Your task to perform on an android device: Add "bose quietcomfort 35" to the cart on newegg.com, then select checkout. Image 0: 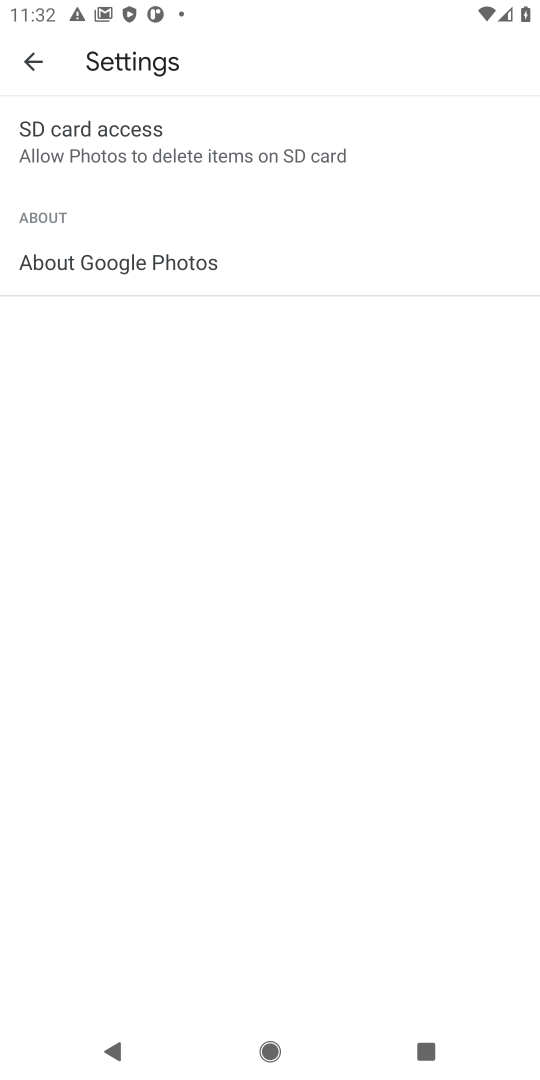
Step 0: press home button
Your task to perform on an android device: Add "bose quietcomfort 35" to the cart on newegg.com, then select checkout. Image 1: 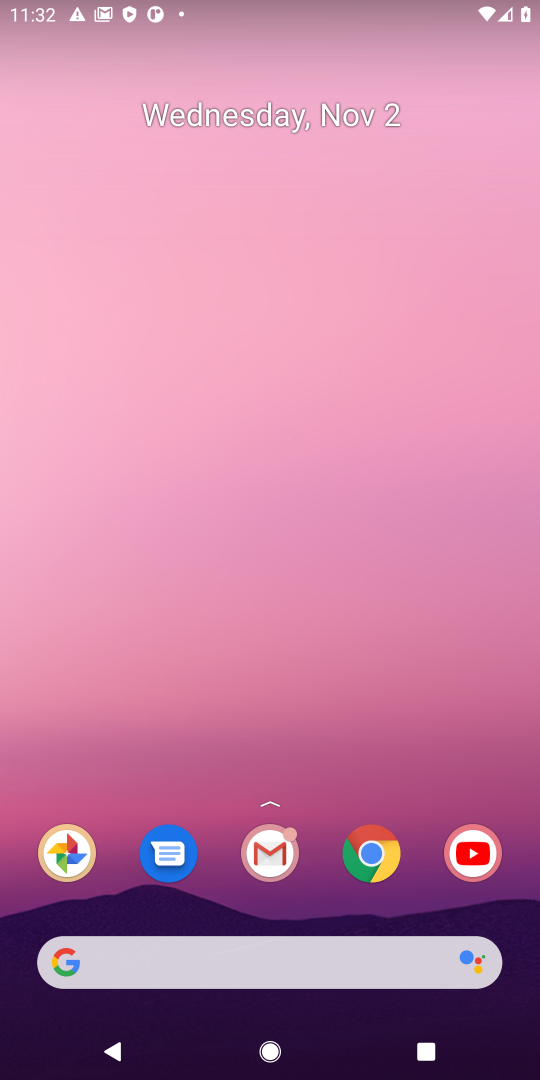
Step 1: click (369, 859)
Your task to perform on an android device: Add "bose quietcomfort 35" to the cart on newegg.com, then select checkout. Image 2: 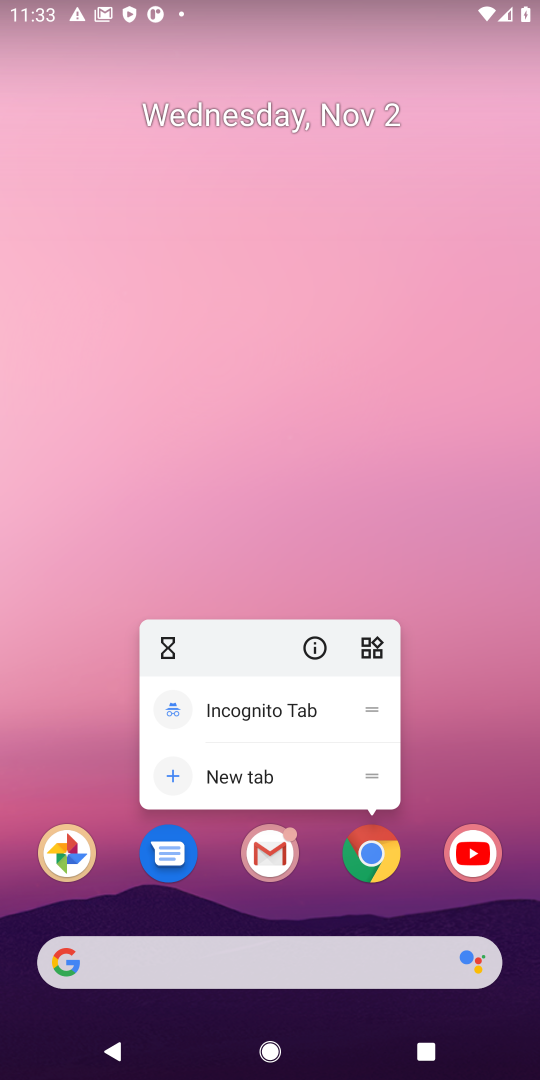
Step 2: click (373, 864)
Your task to perform on an android device: Add "bose quietcomfort 35" to the cart on newegg.com, then select checkout. Image 3: 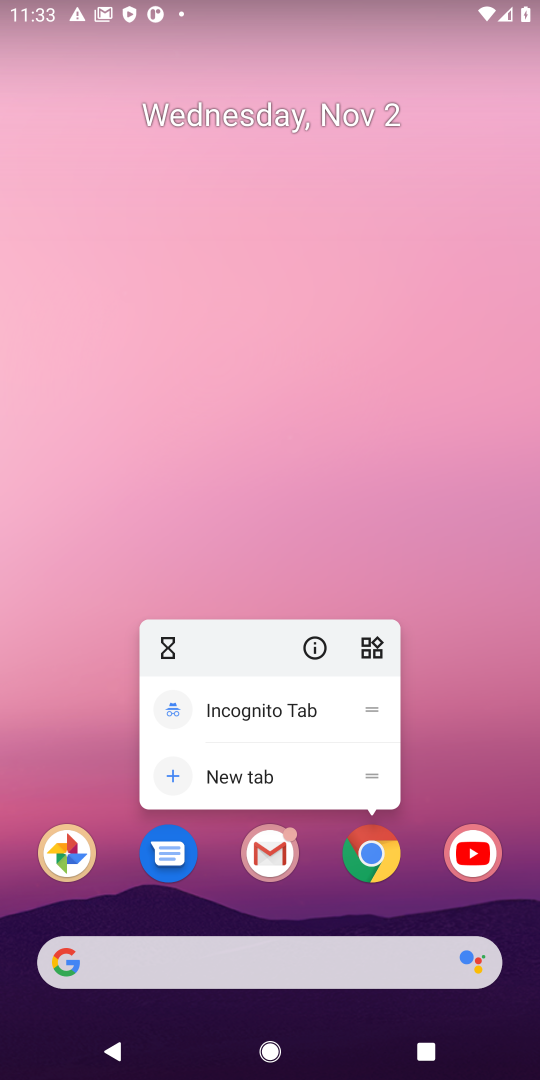
Step 3: click (388, 853)
Your task to perform on an android device: Add "bose quietcomfort 35" to the cart on newegg.com, then select checkout. Image 4: 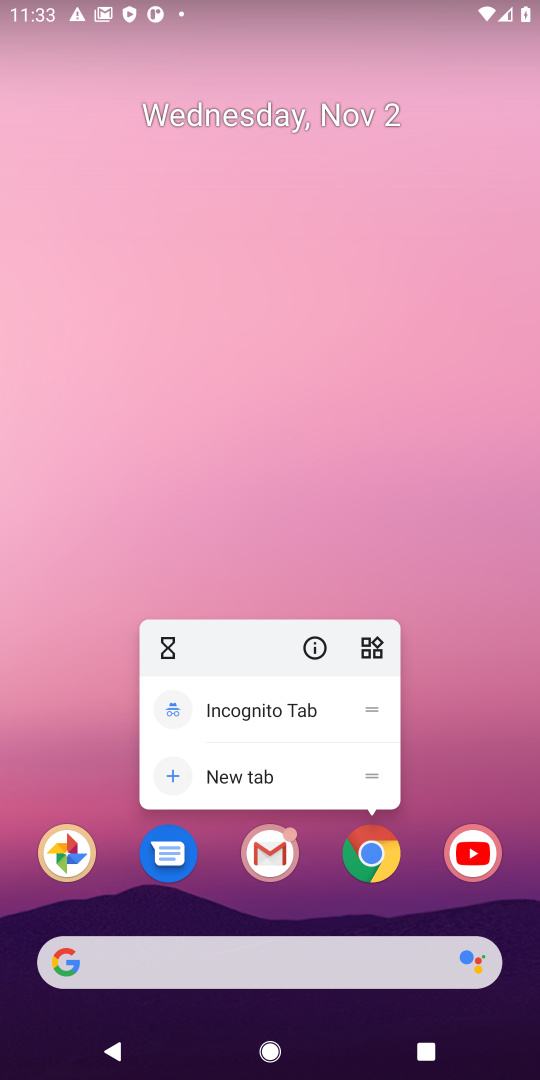
Step 4: click (377, 850)
Your task to perform on an android device: Add "bose quietcomfort 35" to the cart on newegg.com, then select checkout. Image 5: 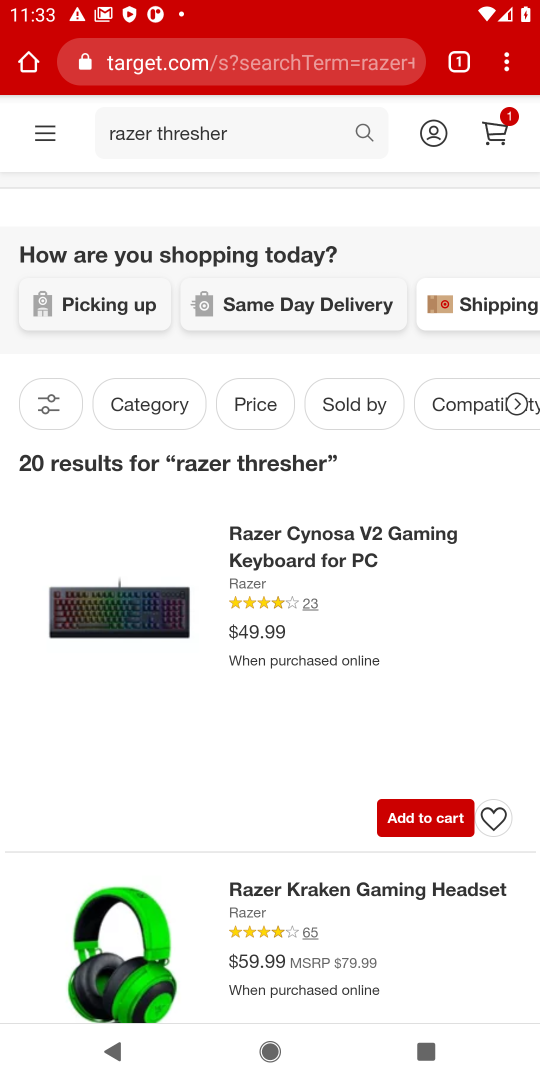
Step 5: click (266, 57)
Your task to perform on an android device: Add "bose quietcomfort 35" to the cart on newegg.com, then select checkout. Image 6: 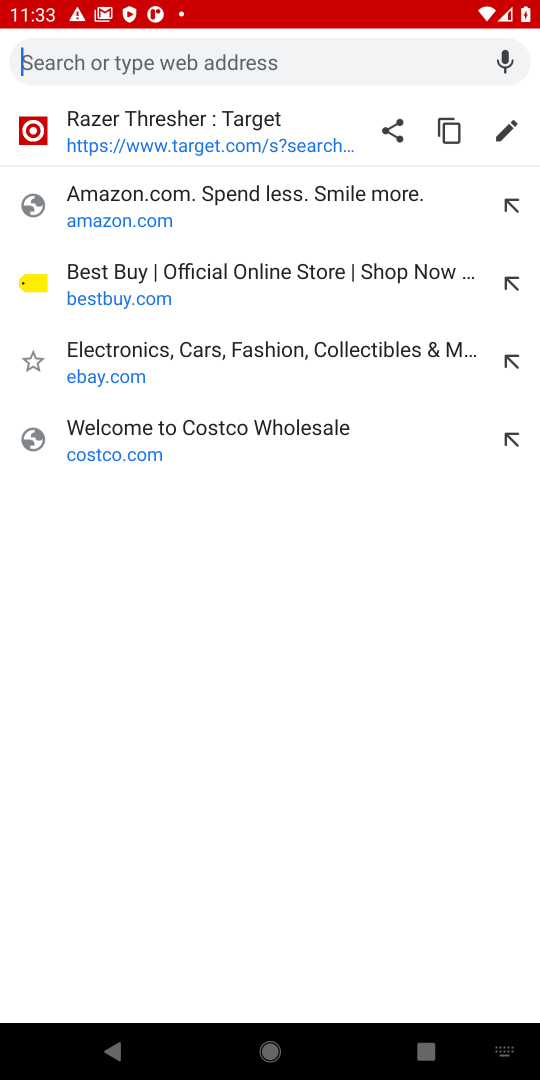
Step 6: type "newegg"
Your task to perform on an android device: Add "bose quietcomfort 35" to the cart on newegg.com, then select checkout. Image 7: 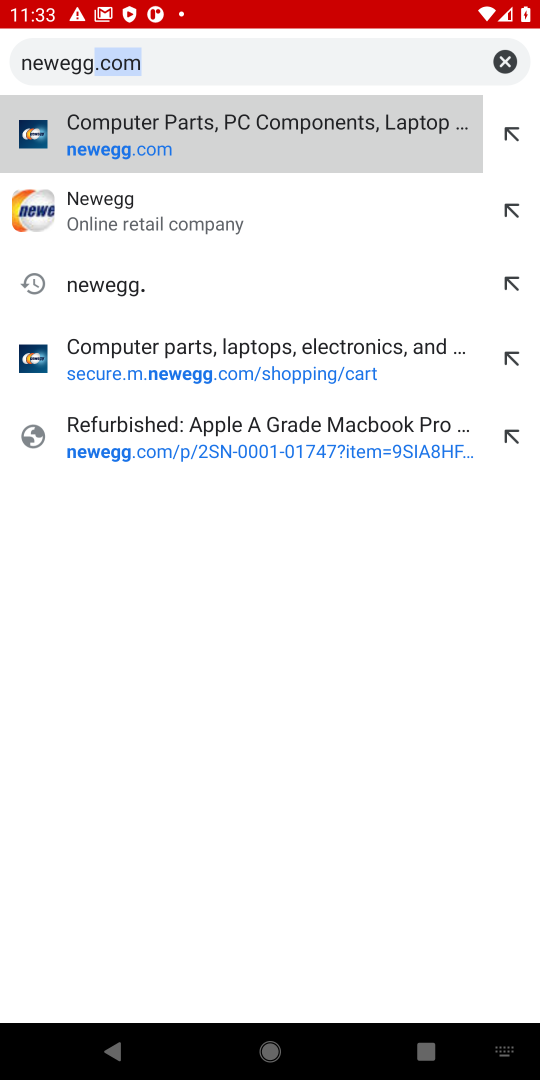
Step 7: press enter
Your task to perform on an android device: Add "bose quietcomfort 35" to the cart on newegg.com, then select checkout. Image 8: 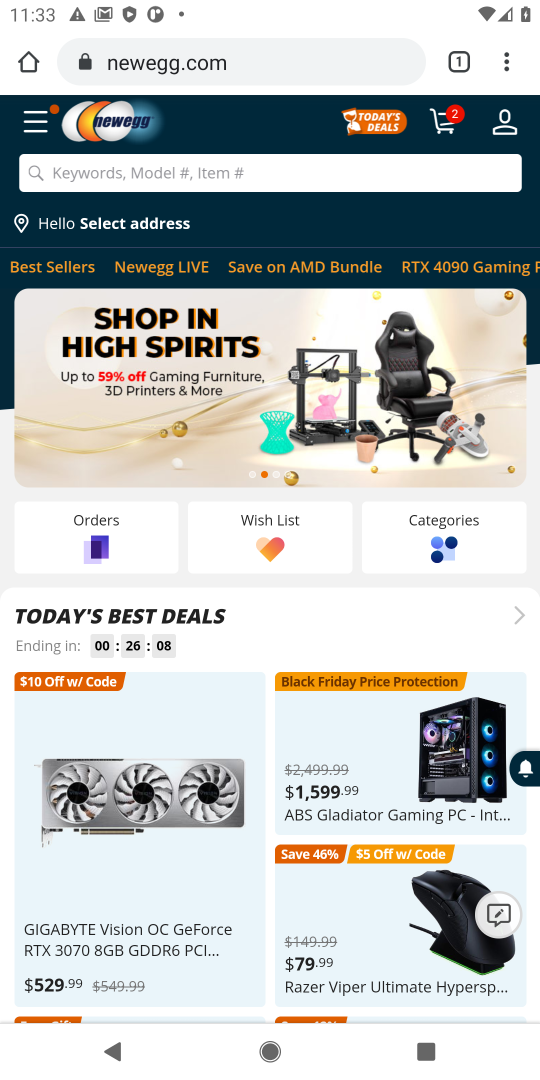
Step 8: click (154, 170)
Your task to perform on an android device: Add "bose quietcomfort 35" to the cart on newegg.com, then select checkout. Image 9: 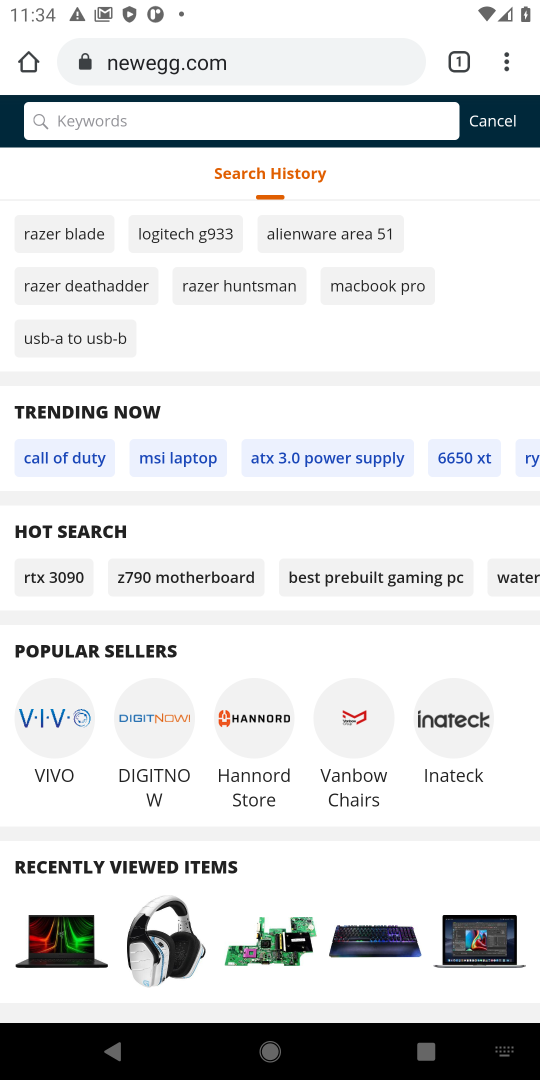
Step 9: type "bose quietcomfort 35"
Your task to perform on an android device: Add "bose quietcomfort 35" to the cart on newegg.com, then select checkout. Image 10: 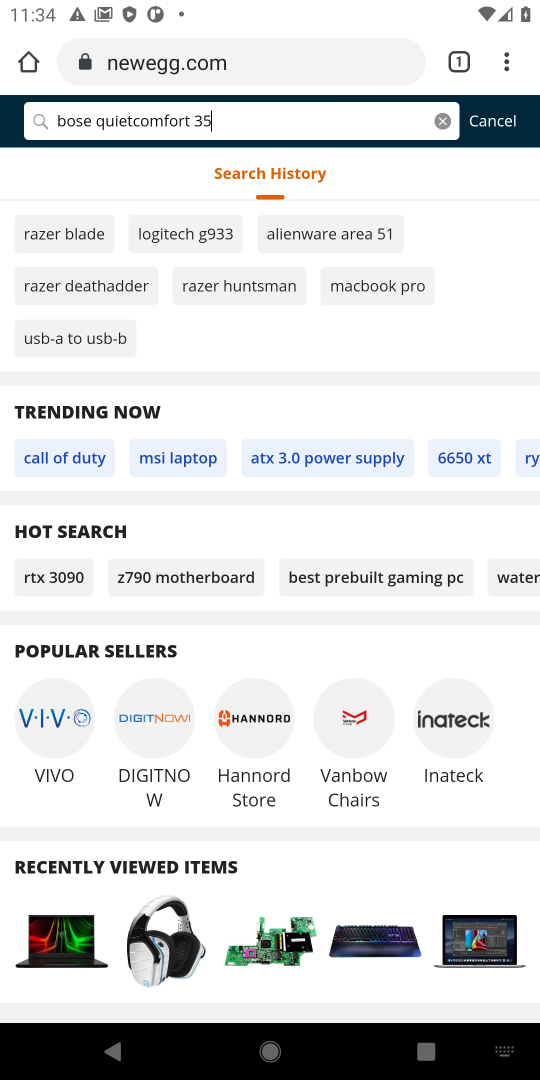
Step 10: press enter
Your task to perform on an android device: Add "bose quietcomfort 35" to the cart on newegg.com, then select checkout. Image 11: 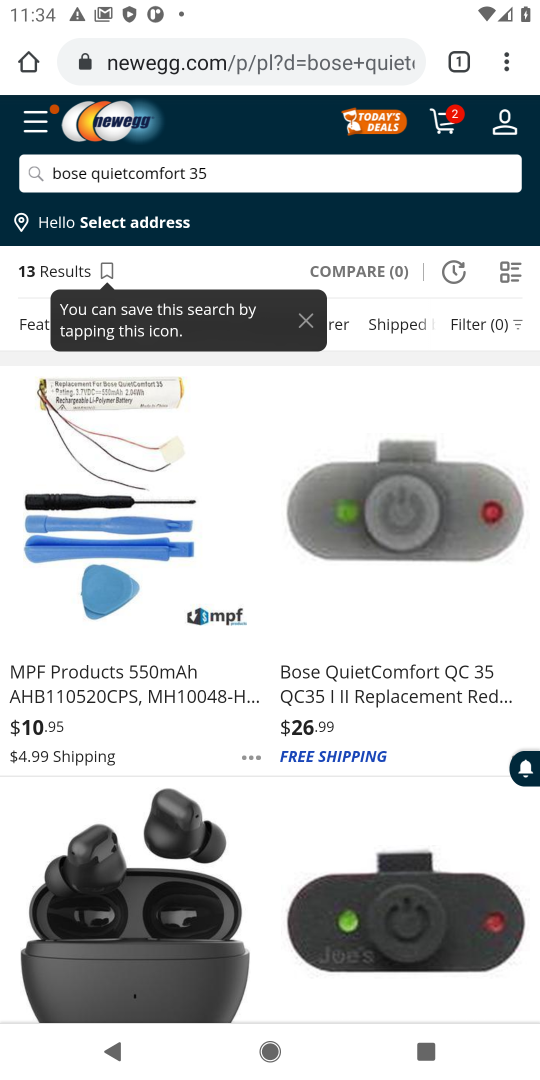
Step 11: drag from (197, 475) to (105, 771)
Your task to perform on an android device: Add "bose quietcomfort 35" to the cart on newegg.com, then select checkout. Image 12: 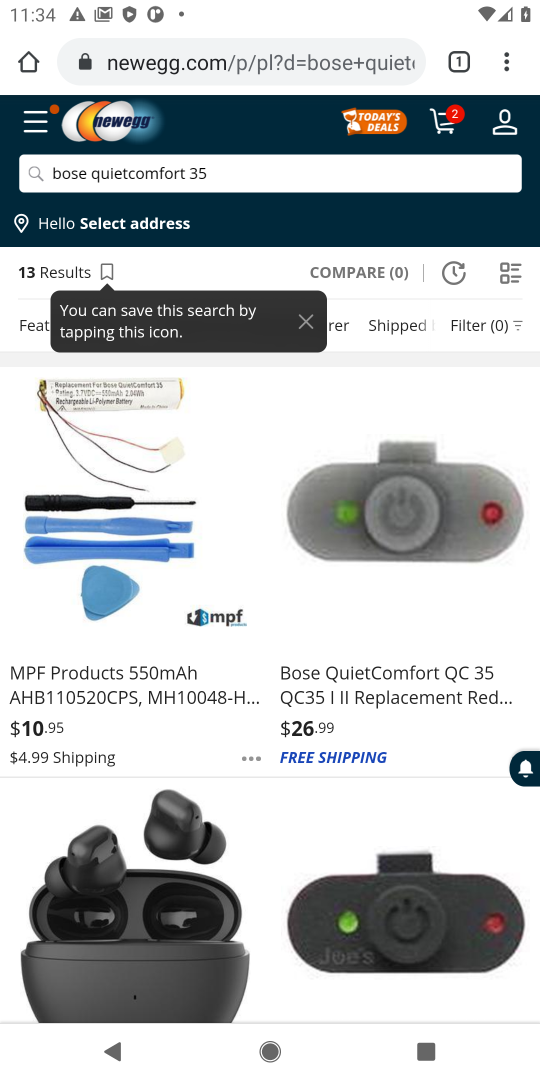
Step 12: click (352, 645)
Your task to perform on an android device: Add "bose quietcomfort 35" to the cart on newegg.com, then select checkout. Image 13: 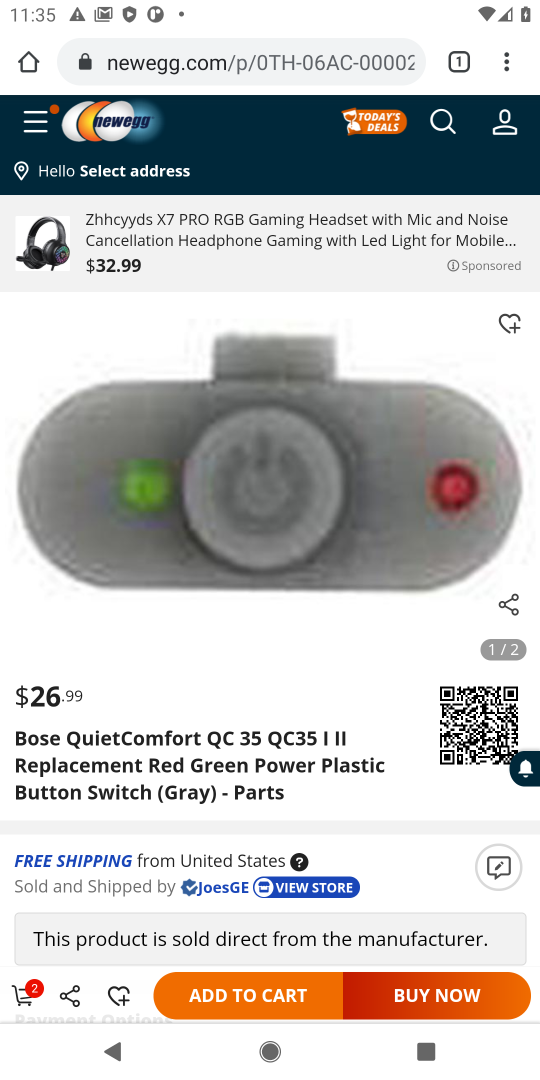
Step 13: click (204, 997)
Your task to perform on an android device: Add "bose quietcomfort 35" to the cart on newegg.com, then select checkout. Image 14: 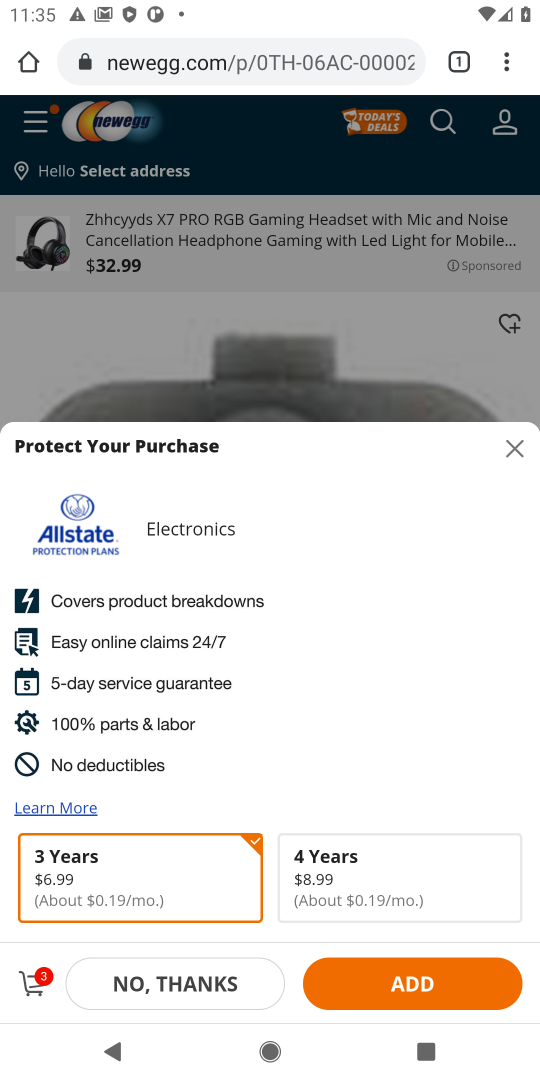
Step 14: click (46, 972)
Your task to perform on an android device: Add "bose quietcomfort 35" to the cart on newegg.com, then select checkout. Image 15: 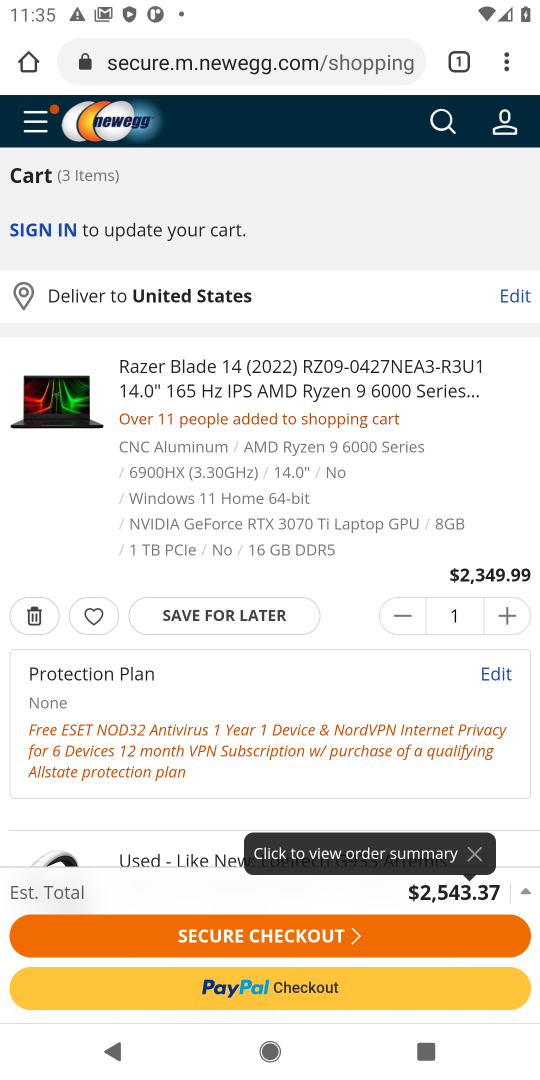
Step 15: click (31, 616)
Your task to perform on an android device: Add "bose quietcomfort 35" to the cart on newegg.com, then select checkout. Image 16: 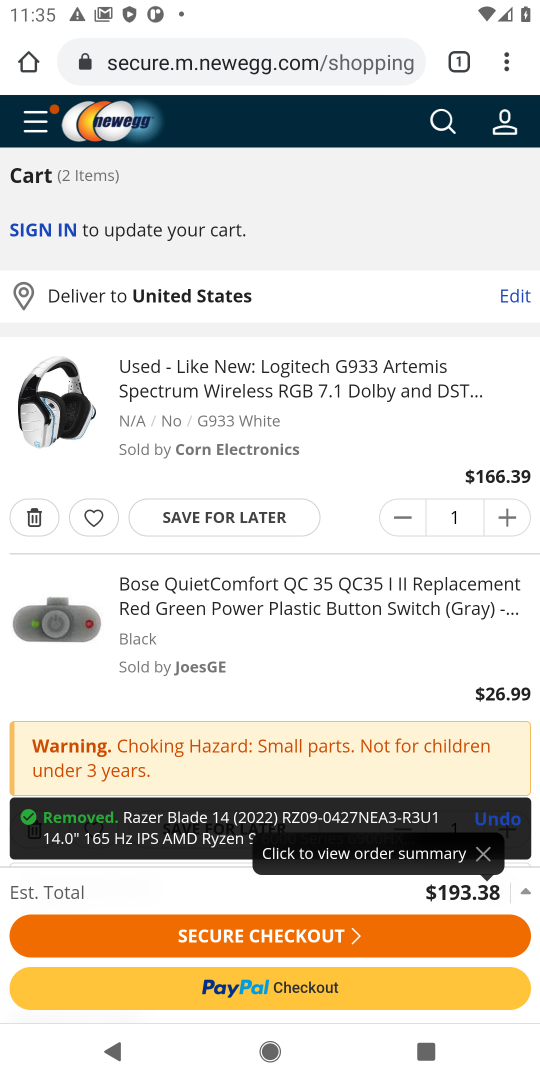
Step 16: click (32, 512)
Your task to perform on an android device: Add "bose quietcomfort 35" to the cart on newegg.com, then select checkout. Image 17: 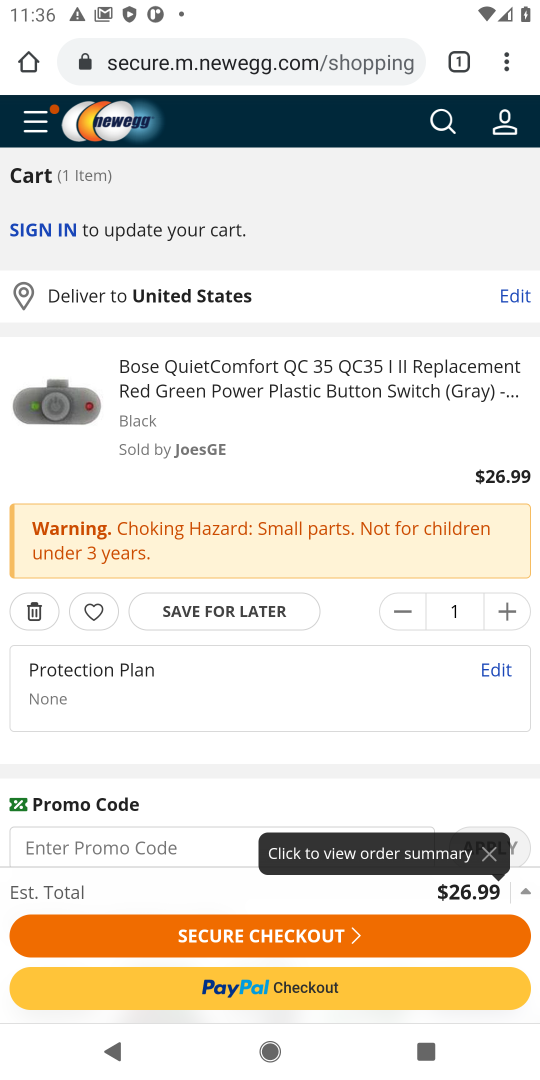
Step 17: click (333, 943)
Your task to perform on an android device: Add "bose quietcomfort 35" to the cart on newegg.com, then select checkout. Image 18: 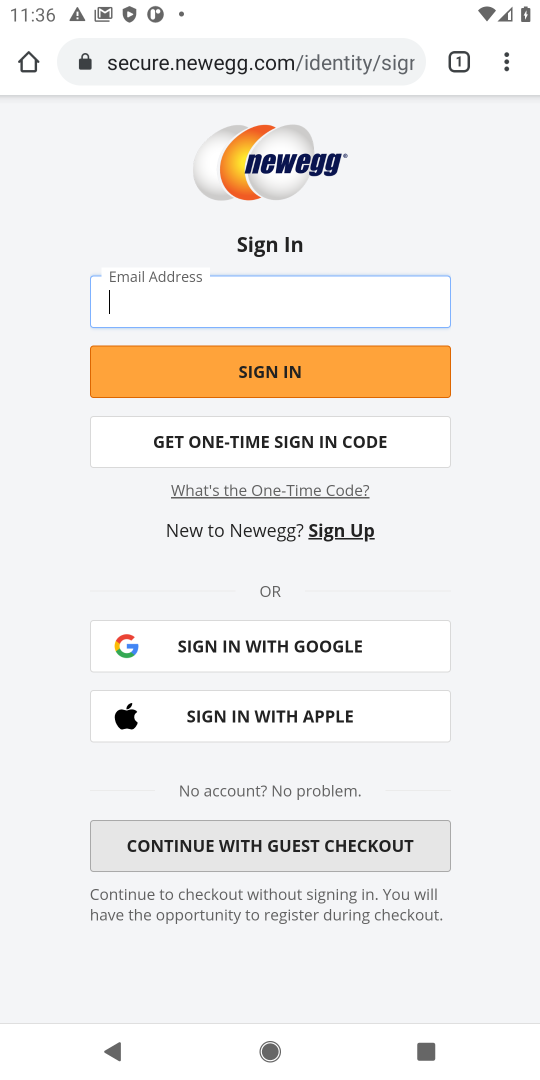
Step 18: task complete